Your task to perform on an android device: turn off smart reply in the gmail app Image 0: 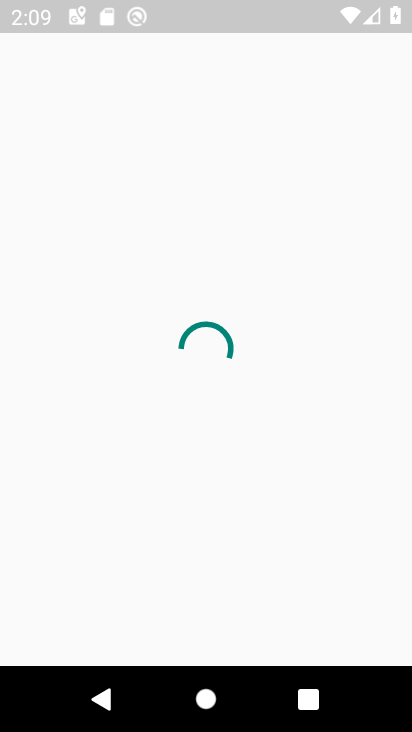
Step 0: press home button
Your task to perform on an android device: turn off smart reply in the gmail app Image 1: 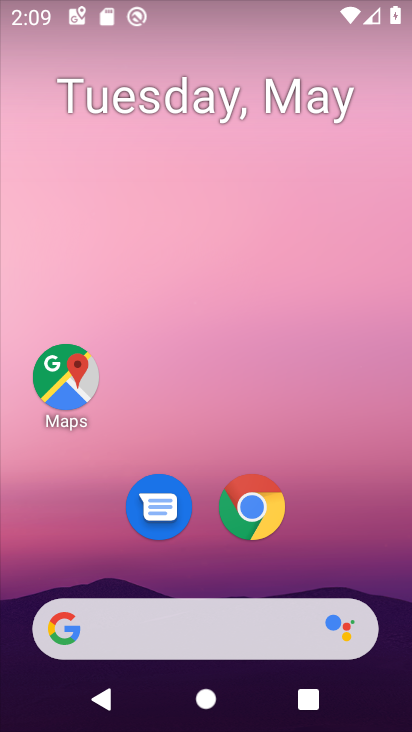
Step 1: drag from (217, 585) to (242, 214)
Your task to perform on an android device: turn off smart reply in the gmail app Image 2: 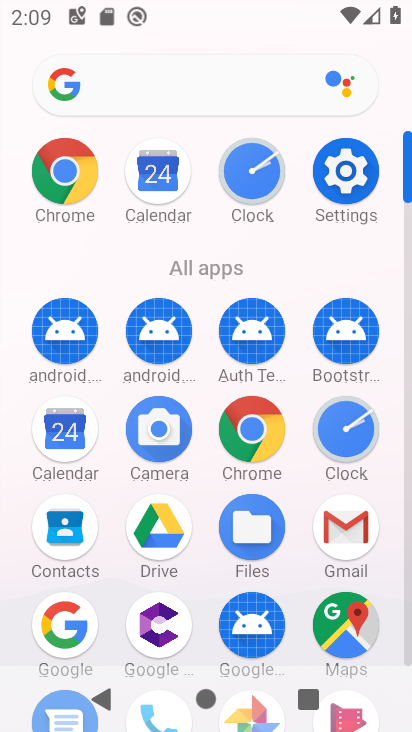
Step 2: click (326, 161)
Your task to perform on an android device: turn off smart reply in the gmail app Image 3: 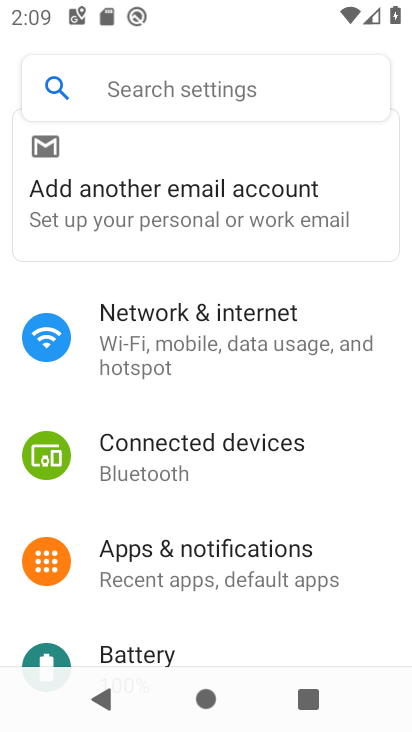
Step 3: press home button
Your task to perform on an android device: turn off smart reply in the gmail app Image 4: 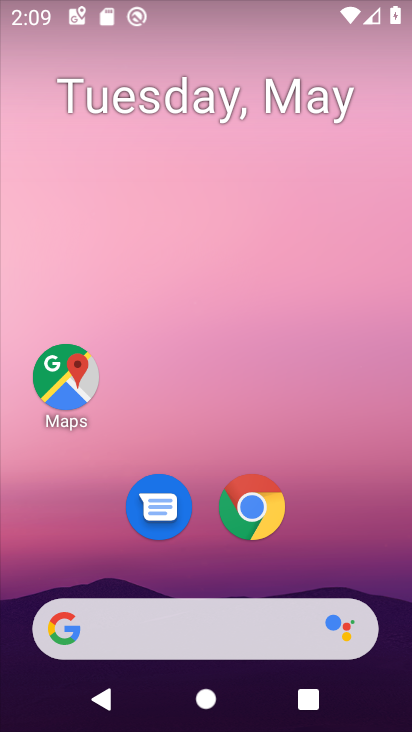
Step 4: drag from (230, 417) to (214, 198)
Your task to perform on an android device: turn off smart reply in the gmail app Image 5: 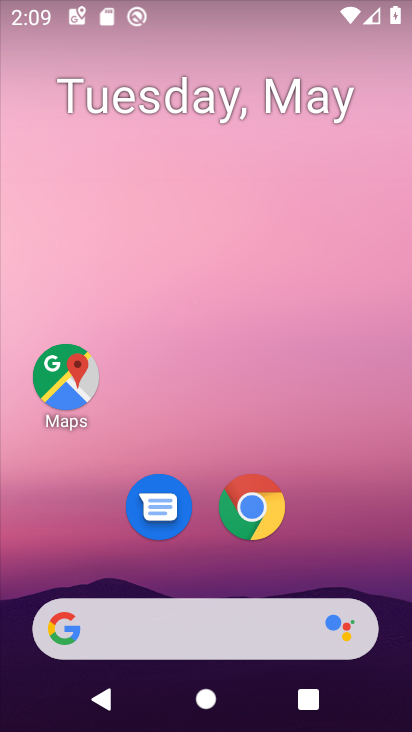
Step 5: drag from (190, 581) to (193, 177)
Your task to perform on an android device: turn off smart reply in the gmail app Image 6: 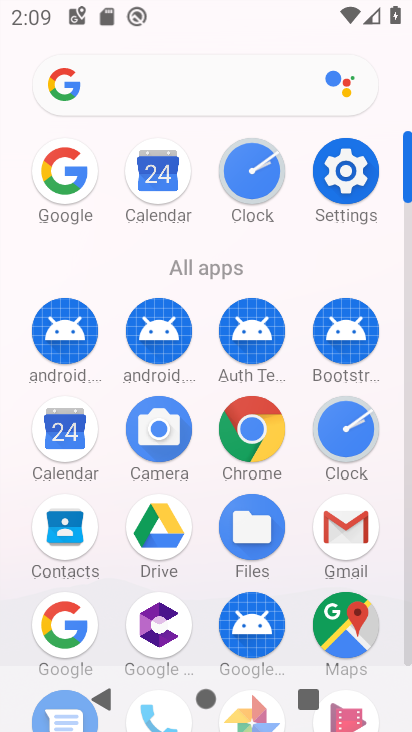
Step 6: click (339, 521)
Your task to perform on an android device: turn off smart reply in the gmail app Image 7: 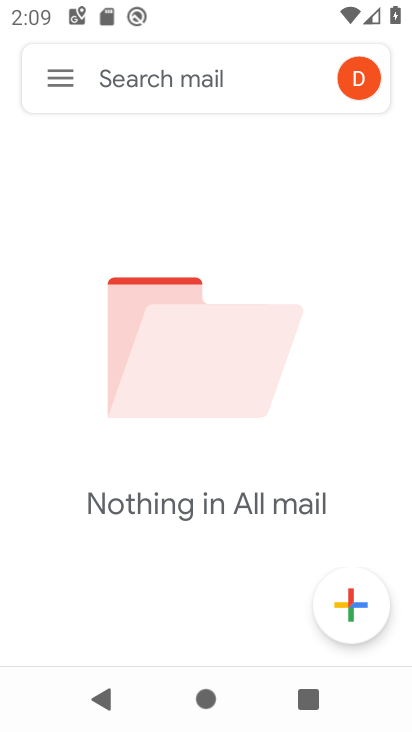
Step 7: click (54, 80)
Your task to perform on an android device: turn off smart reply in the gmail app Image 8: 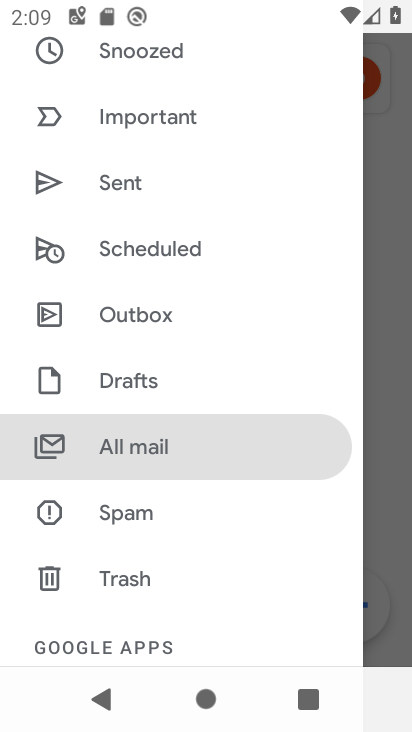
Step 8: drag from (181, 554) to (197, 185)
Your task to perform on an android device: turn off smart reply in the gmail app Image 9: 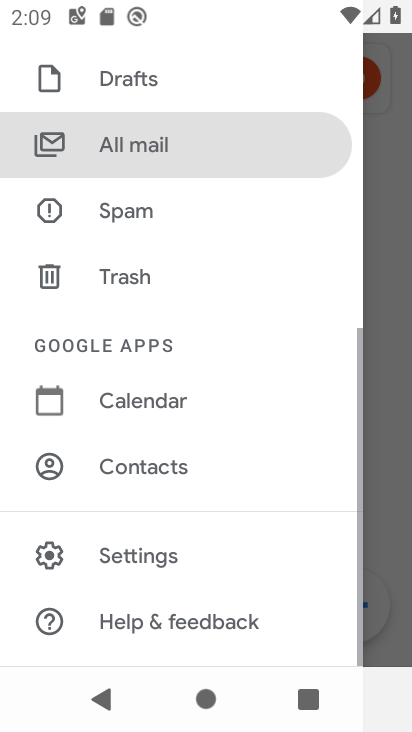
Step 9: click (131, 547)
Your task to perform on an android device: turn off smart reply in the gmail app Image 10: 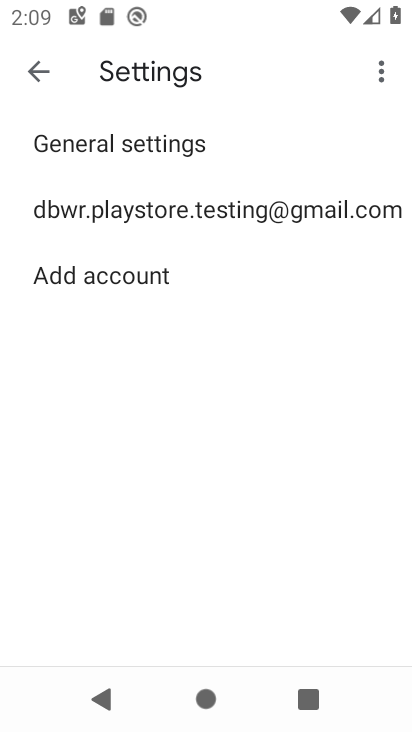
Step 10: click (96, 209)
Your task to perform on an android device: turn off smart reply in the gmail app Image 11: 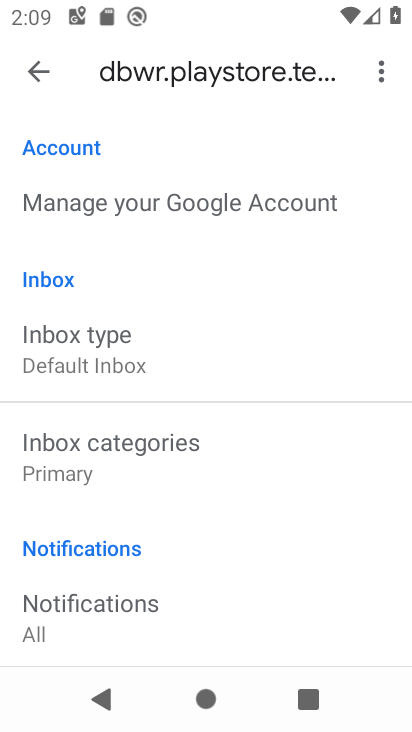
Step 11: drag from (177, 474) to (213, 219)
Your task to perform on an android device: turn off smart reply in the gmail app Image 12: 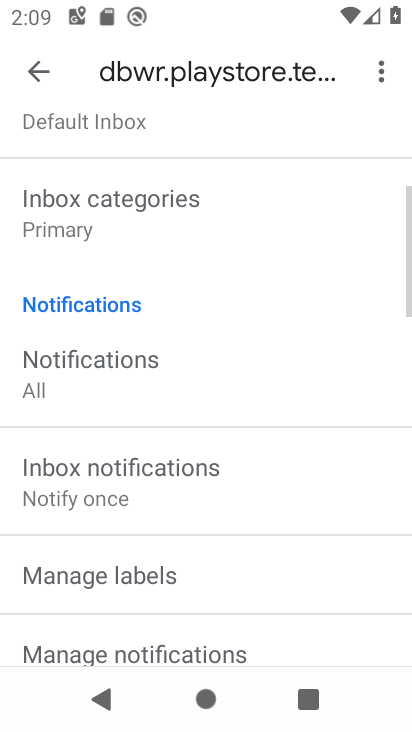
Step 12: drag from (211, 491) to (225, 281)
Your task to perform on an android device: turn off smart reply in the gmail app Image 13: 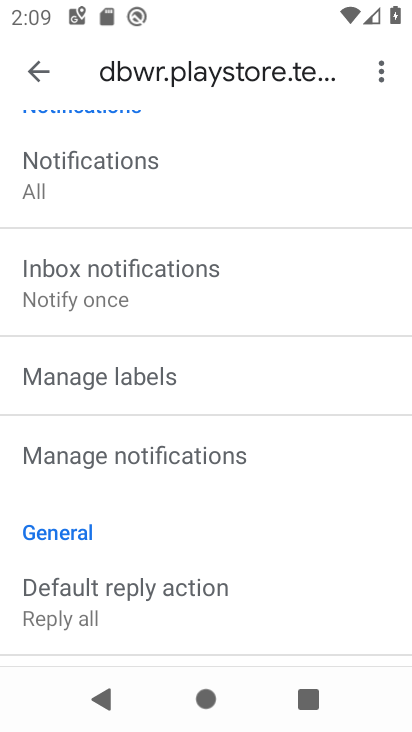
Step 13: drag from (217, 559) to (213, 252)
Your task to perform on an android device: turn off smart reply in the gmail app Image 14: 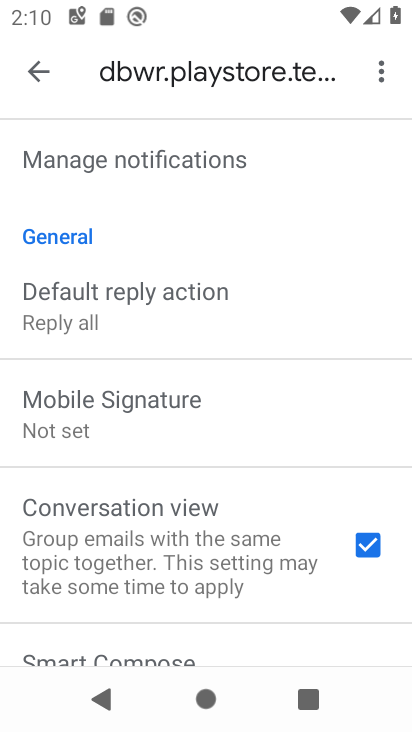
Step 14: drag from (179, 564) to (209, 292)
Your task to perform on an android device: turn off smart reply in the gmail app Image 15: 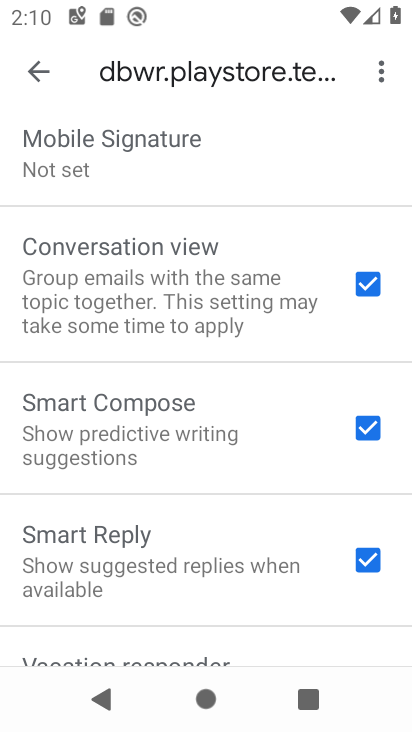
Step 15: click (366, 558)
Your task to perform on an android device: turn off smart reply in the gmail app Image 16: 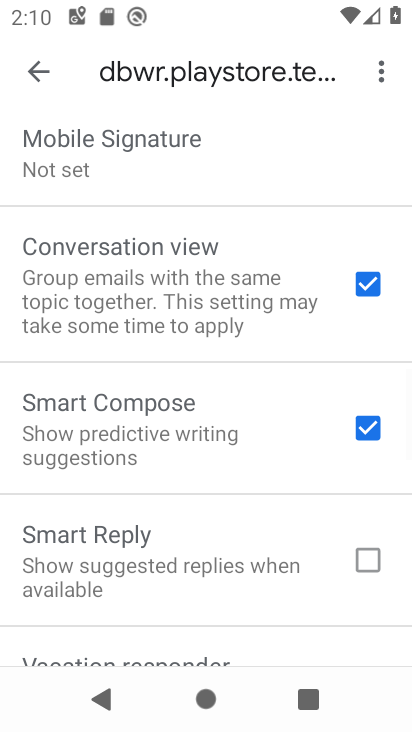
Step 16: task complete